Your task to perform on an android device: turn on location history Image 0: 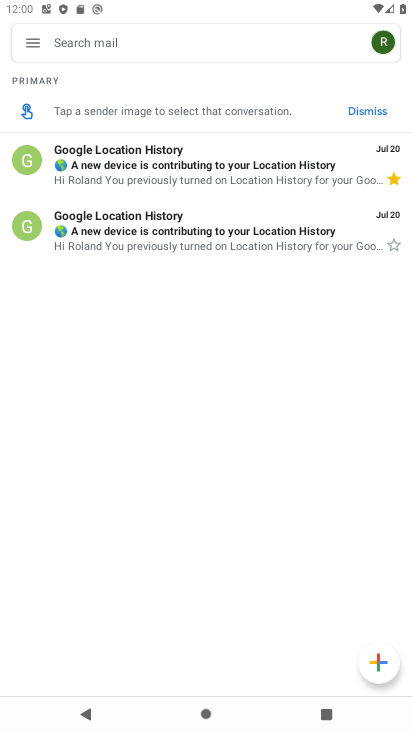
Step 0: press home button
Your task to perform on an android device: turn on location history Image 1: 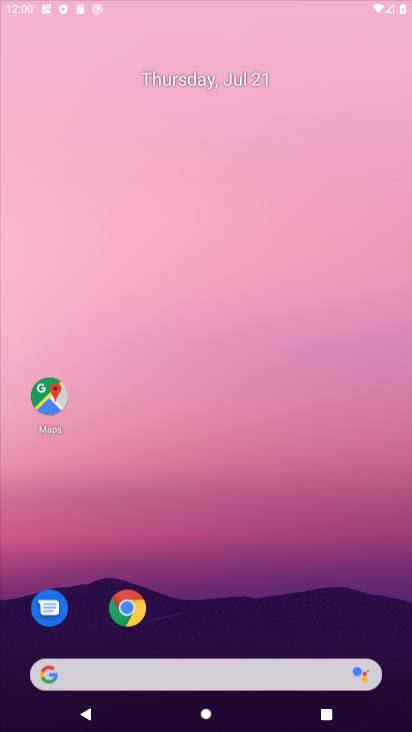
Step 1: drag from (372, 675) to (200, 37)
Your task to perform on an android device: turn on location history Image 2: 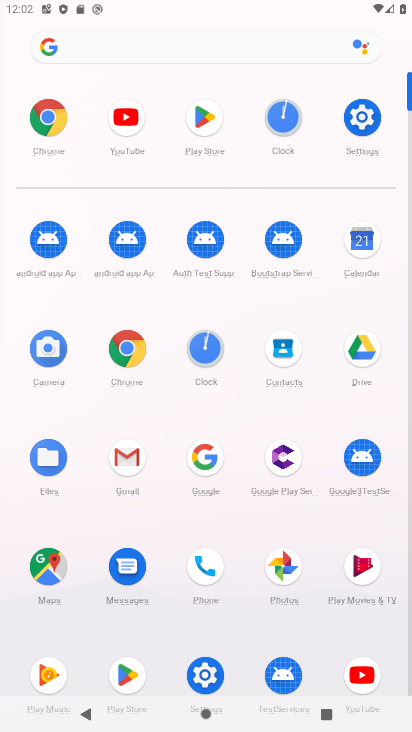
Step 2: click (207, 678)
Your task to perform on an android device: turn on location history Image 3: 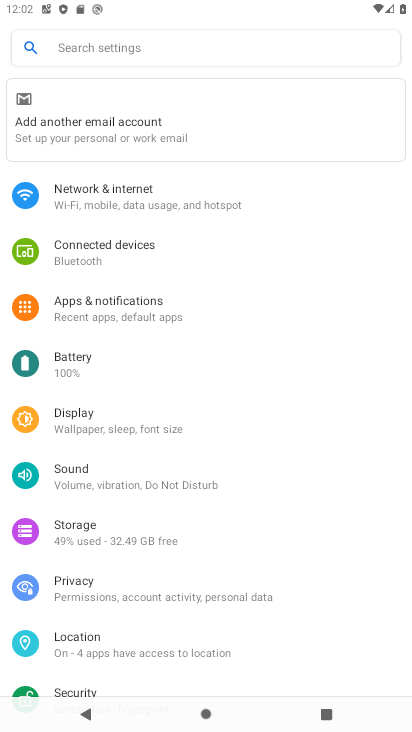
Step 3: click (99, 648)
Your task to perform on an android device: turn on location history Image 4: 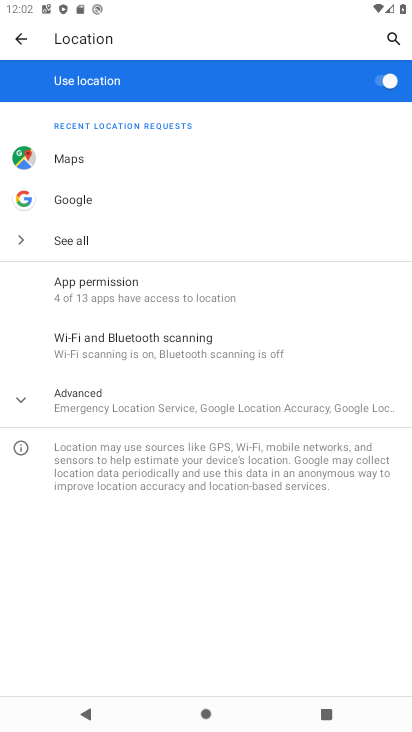
Step 4: click (89, 405)
Your task to perform on an android device: turn on location history Image 5: 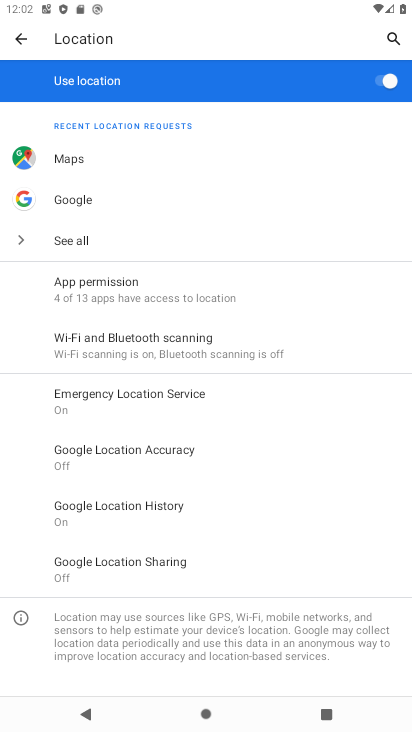
Step 5: click (146, 501)
Your task to perform on an android device: turn on location history Image 6: 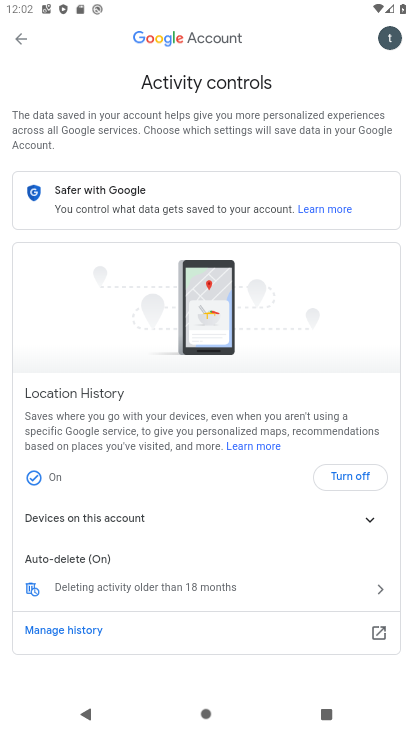
Step 6: click (358, 475)
Your task to perform on an android device: turn on location history Image 7: 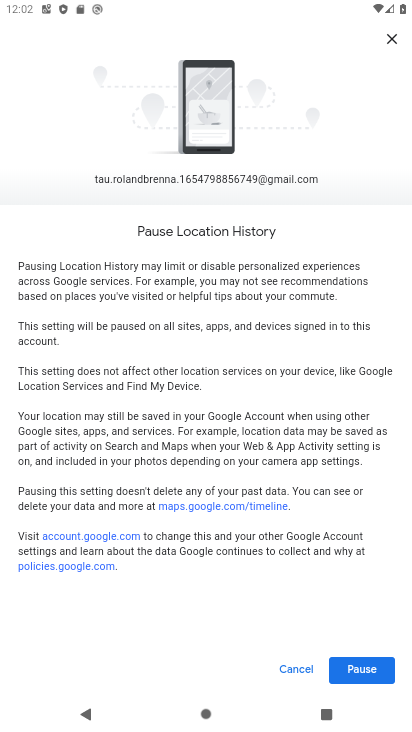
Step 7: task complete